Your task to perform on an android device: change keyboard looks Image 0: 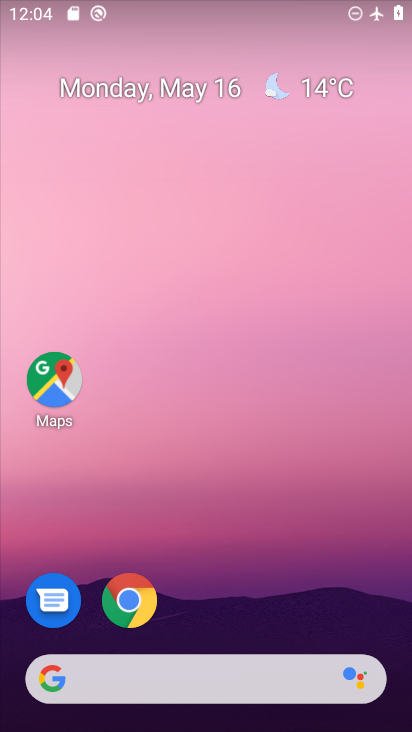
Step 0: drag from (384, 637) to (280, 34)
Your task to perform on an android device: change keyboard looks Image 1: 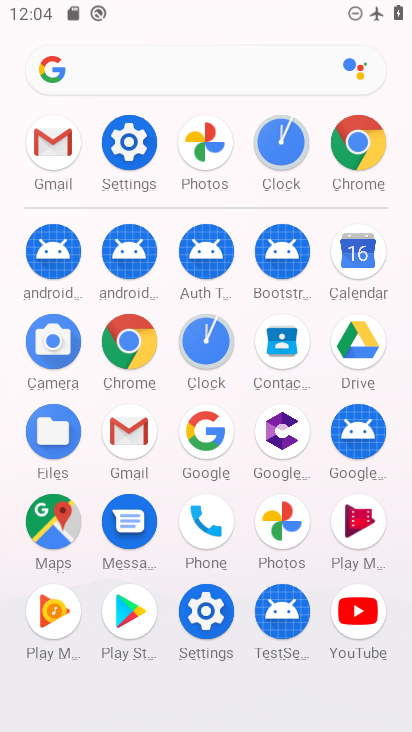
Step 1: click (208, 610)
Your task to perform on an android device: change keyboard looks Image 2: 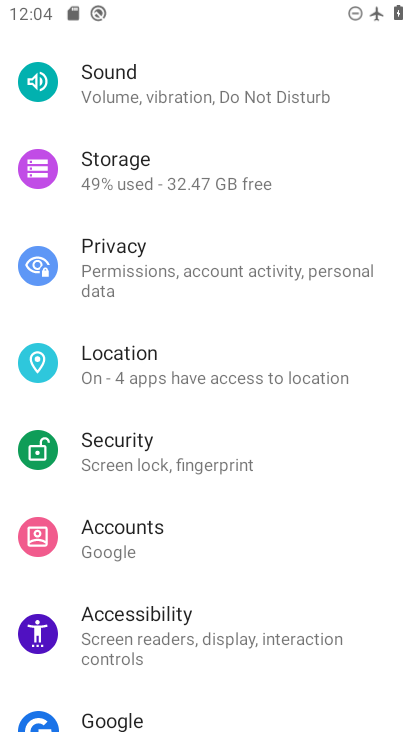
Step 2: drag from (357, 655) to (352, 236)
Your task to perform on an android device: change keyboard looks Image 3: 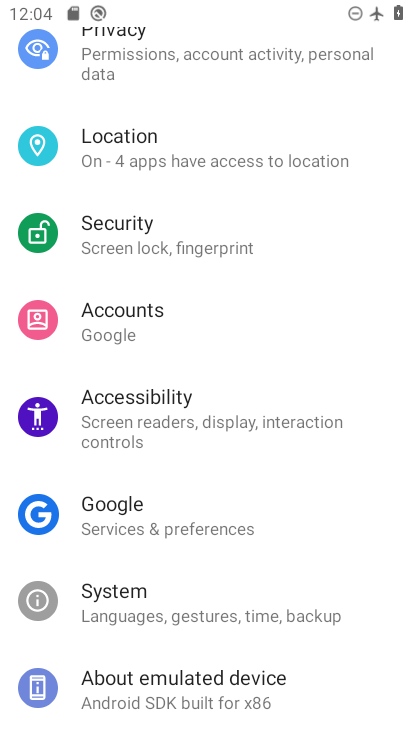
Step 3: click (110, 614)
Your task to perform on an android device: change keyboard looks Image 4: 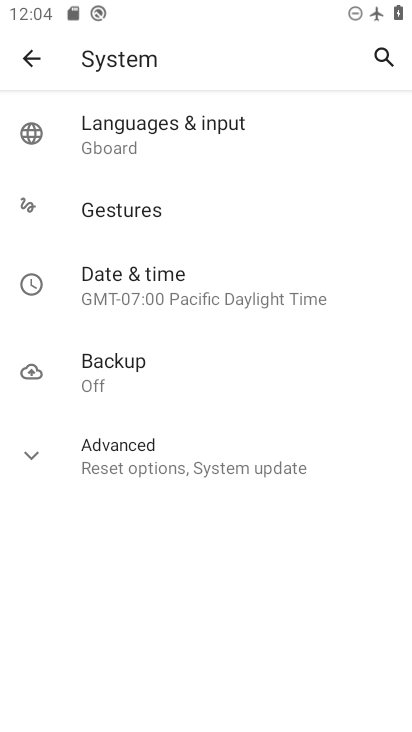
Step 4: click (104, 120)
Your task to perform on an android device: change keyboard looks Image 5: 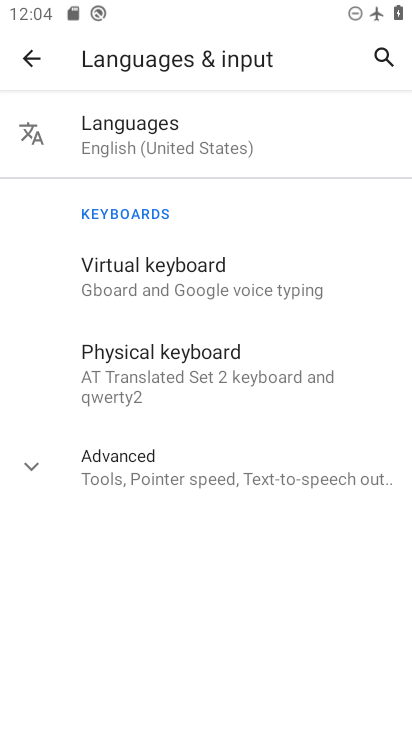
Step 5: click (101, 366)
Your task to perform on an android device: change keyboard looks Image 6: 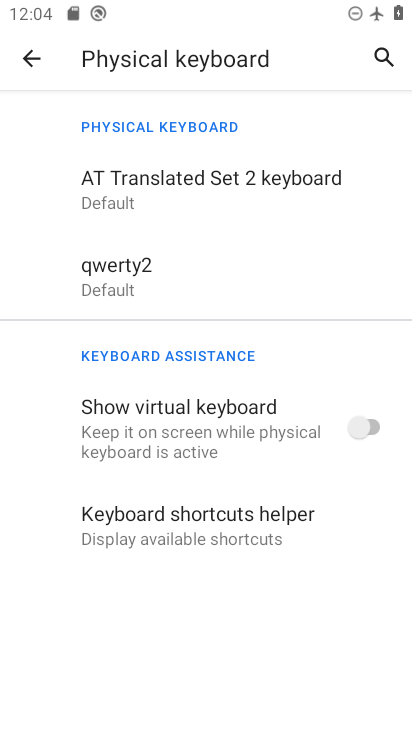
Step 6: click (153, 261)
Your task to perform on an android device: change keyboard looks Image 7: 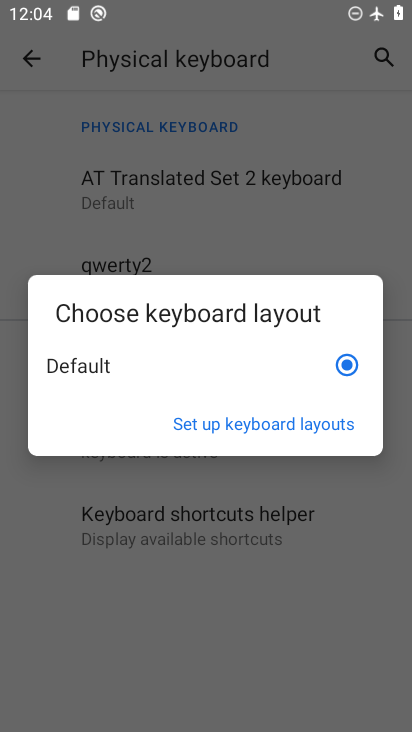
Step 7: click (275, 422)
Your task to perform on an android device: change keyboard looks Image 8: 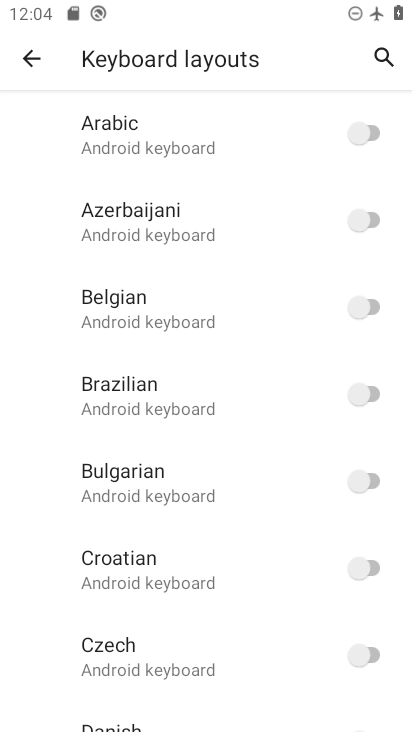
Step 8: drag from (306, 571) to (300, 195)
Your task to perform on an android device: change keyboard looks Image 9: 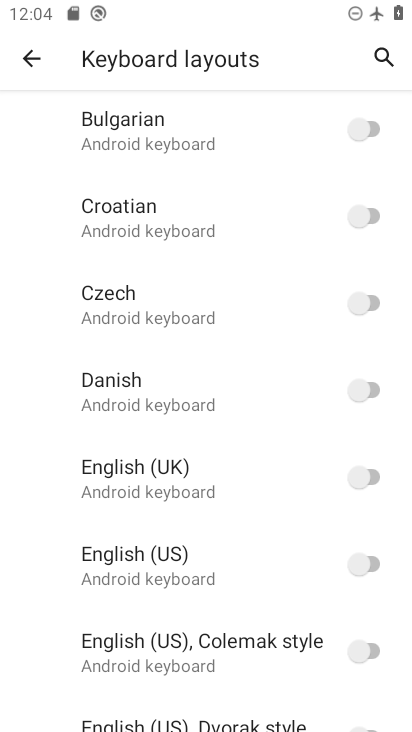
Step 9: click (369, 469)
Your task to perform on an android device: change keyboard looks Image 10: 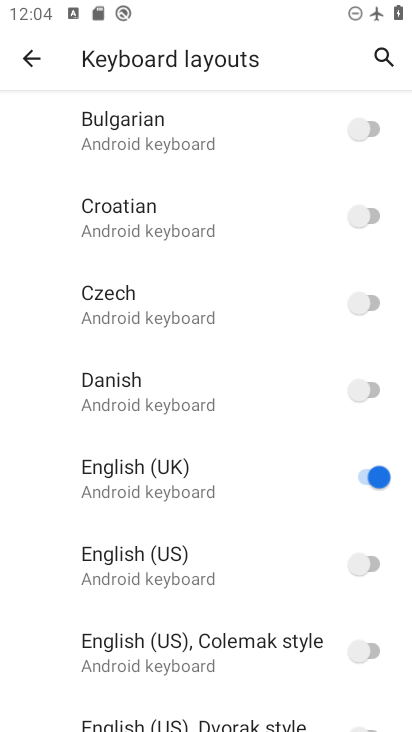
Step 10: task complete